Your task to perform on an android device: Open calendar and show me the first week of next month Image 0: 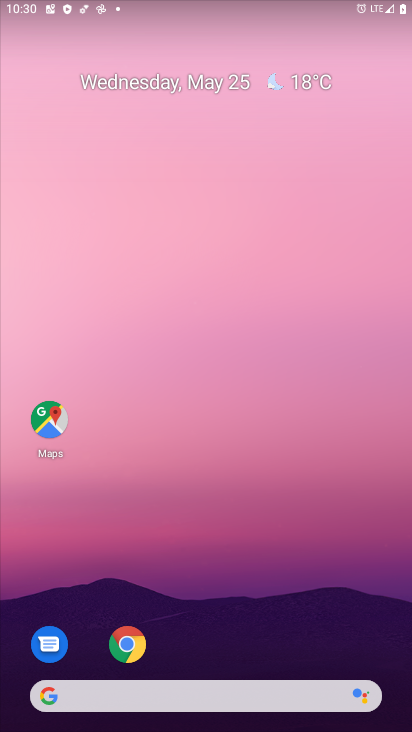
Step 0: press home button
Your task to perform on an android device: Open calendar and show me the first week of next month Image 1: 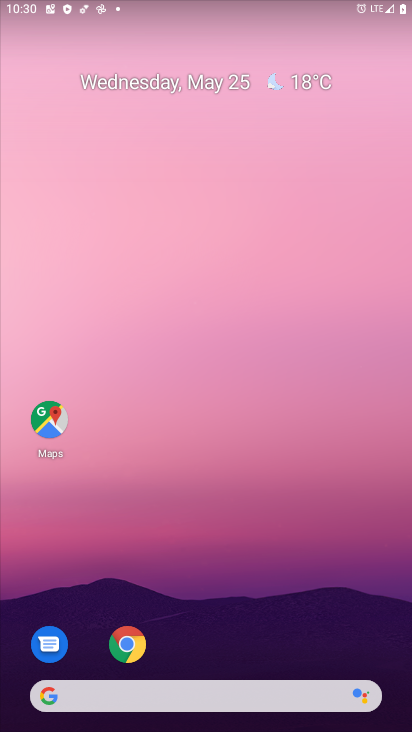
Step 1: drag from (215, 652) to (217, 127)
Your task to perform on an android device: Open calendar and show me the first week of next month Image 2: 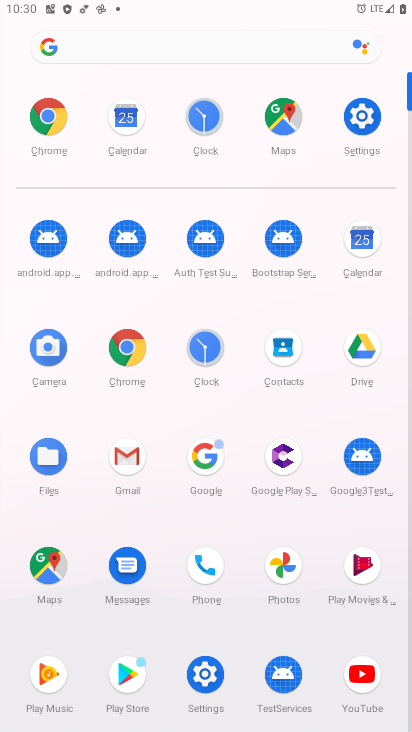
Step 2: click (363, 236)
Your task to perform on an android device: Open calendar and show me the first week of next month Image 3: 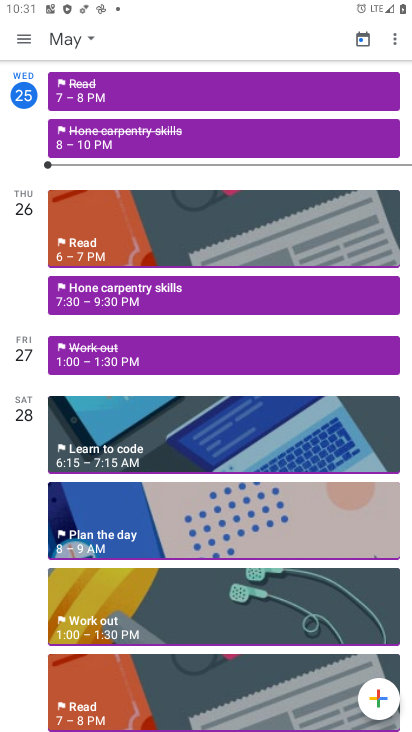
Step 3: click (34, 462)
Your task to perform on an android device: Open calendar and show me the first week of next month Image 4: 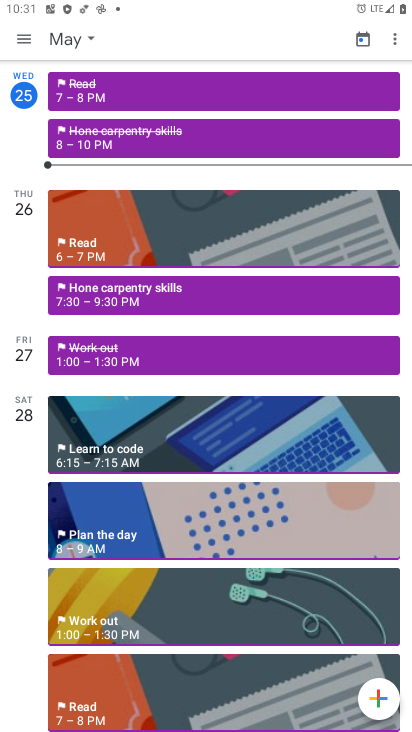
Step 4: click (27, 39)
Your task to perform on an android device: Open calendar and show me the first week of next month Image 5: 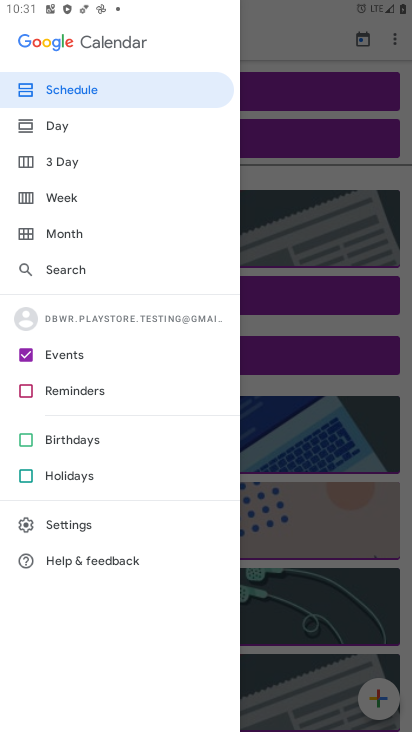
Step 5: click (30, 189)
Your task to perform on an android device: Open calendar and show me the first week of next month Image 6: 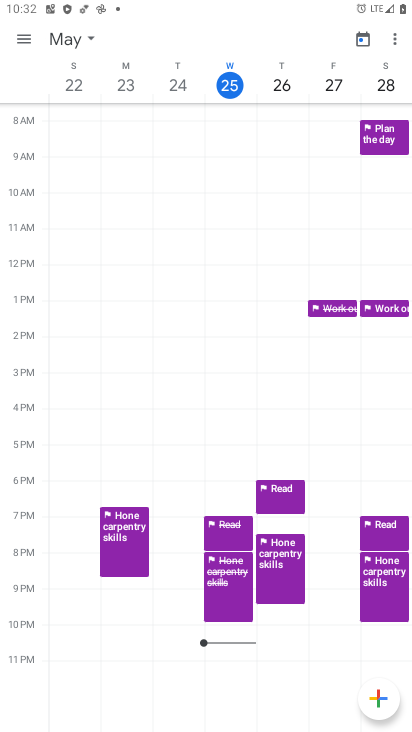
Step 6: drag from (385, 76) to (25, 78)
Your task to perform on an android device: Open calendar and show me the first week of next month Image 7: 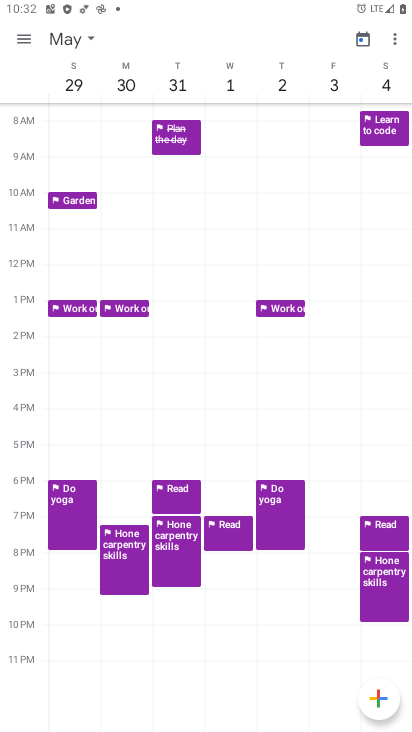
Step 7: click (221, 83)
Your task to perform on an android device: Open calendar and show me the first week of next month Image 8: 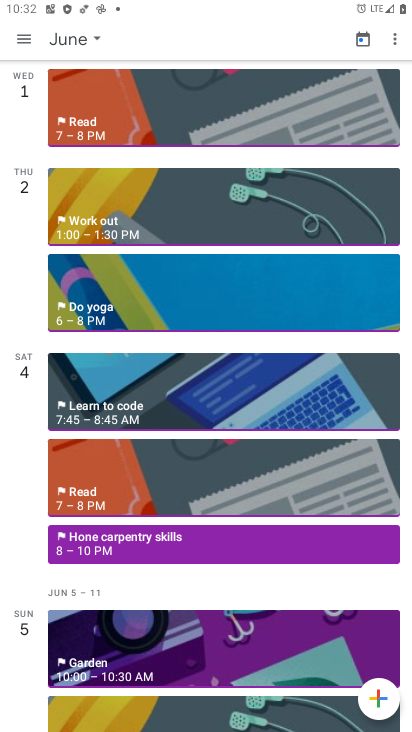
Step 8: task complete